Your task to perform on an android device: Open ESPN.com Image 0: 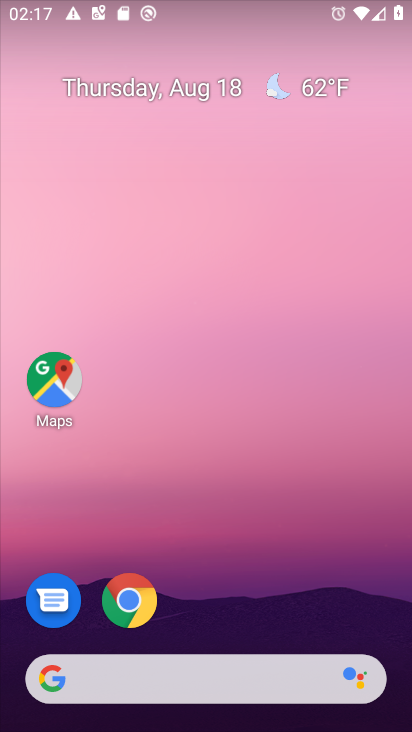
Step 0: click (55, 682)
Your task to perform on an android device: Open ESPN.com Image 1: 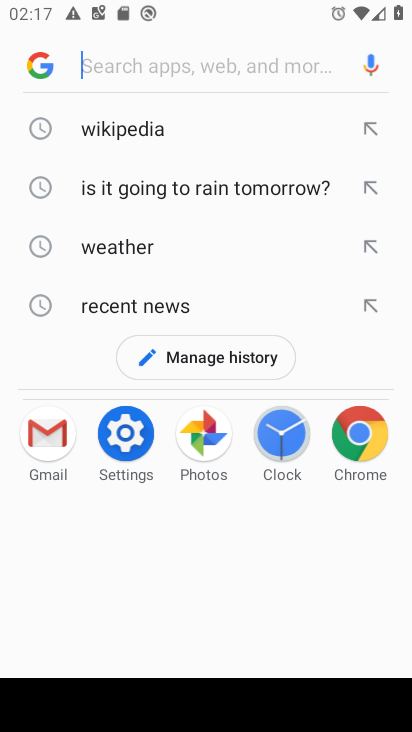
Step 1: type " ESPN.com"
Your task to perform on an android device: Open ESPN.com Image 2: 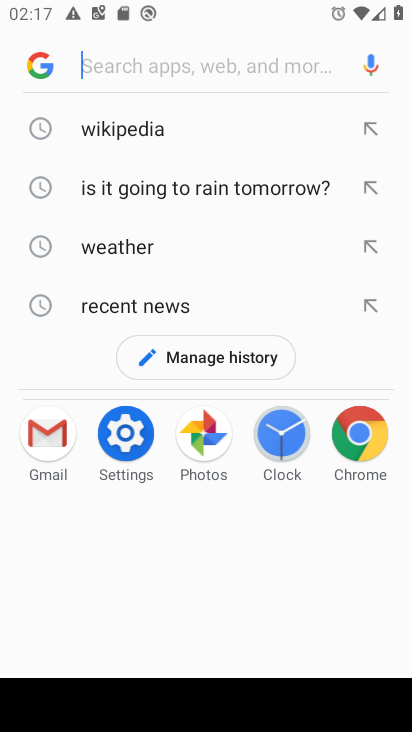
Step 2: click (95, 56)
Your task to perform on an android device: Open ESPN.com Image 3: 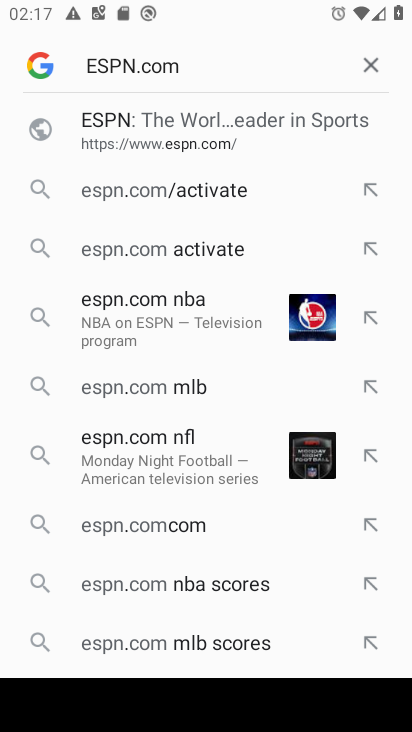
Step 3: press enter
Your task to perform on an android device: Open ESPN.com Image 4: 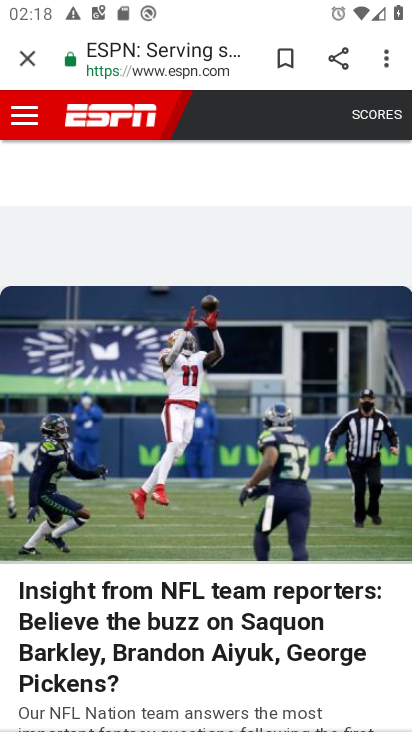
Step 4: task complete